Your task to perform on an android device: Open Android settings Image 0: 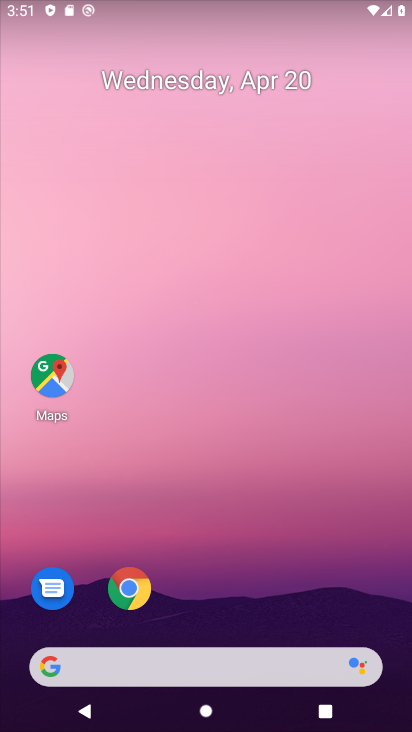
Step 0: drag from (232, 505) to (259, 103)
Your task to perform on an android device: Open Android settings Image 1: 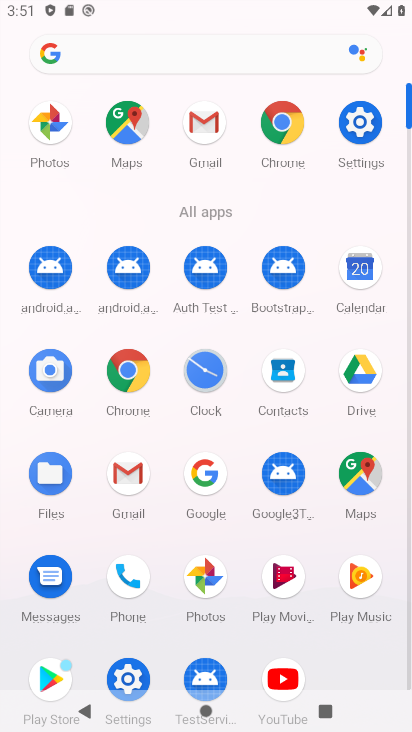
Step 1: click (358, 126)
Your task to perform on an android device: Open Android settings Image 2: 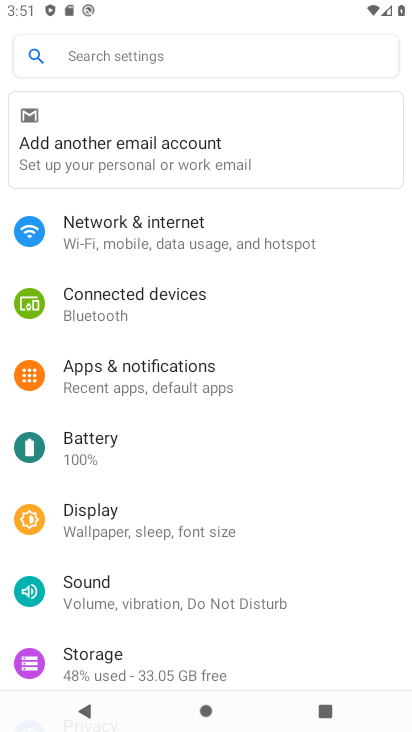
Step 2: drag from (135, 617) to (222, 11)
Your task to perform on an android device: Open Android settings Image 3: 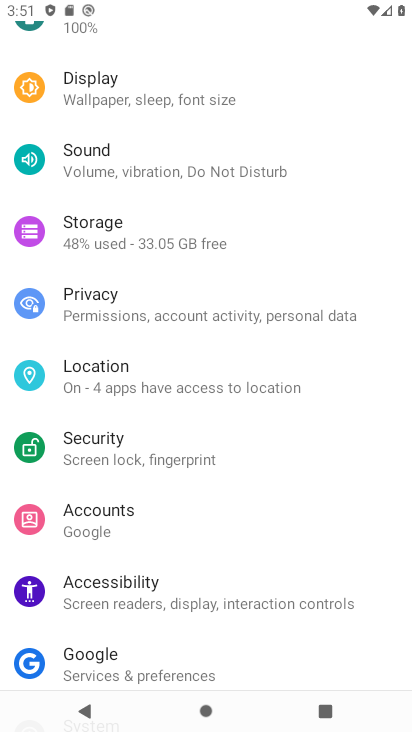
Step 3: drag from (168, 652) to (273, 134)
Your task to perform on an android device: Open Android settings Image 4: 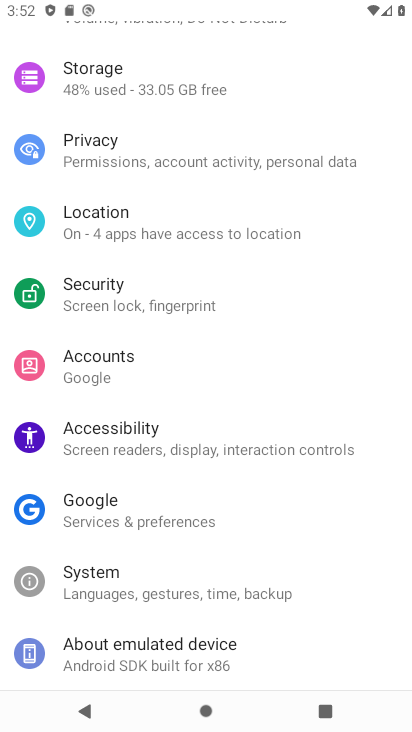
Step 4: click (200, 649)
Your task to perform on an android device: Open Android settings Image 5: 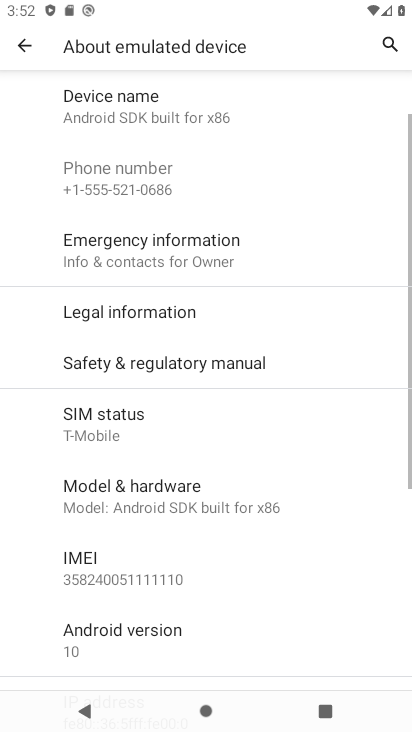
Step 5: task complete